Your task to perform on an android device: Open Google Chrome and open the bookmarks view Image 0: 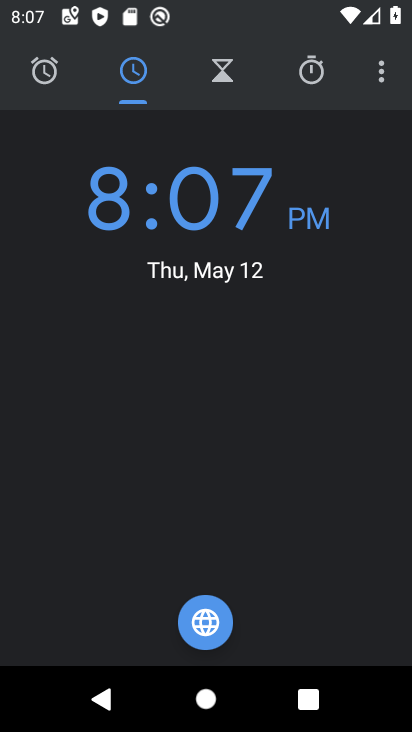
Step 0: press home button
Your task to perform on an android device: Open Google Chrome and open the bookmarks view Image 1: 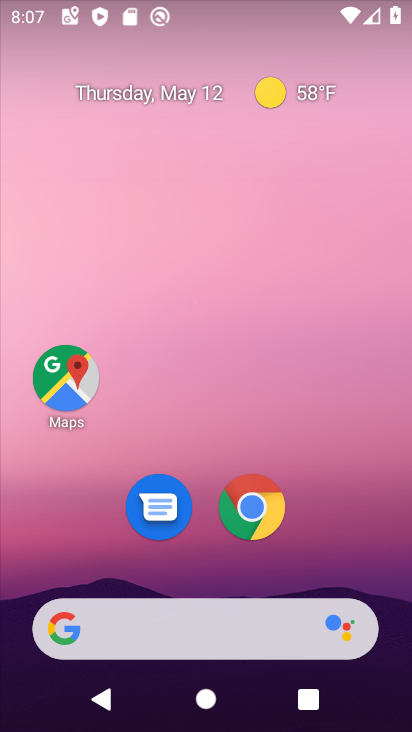
Step 1: click (244, 519)
Your task to perform on an android device: Open Google Chrome and open the bookmarks view Image 2: 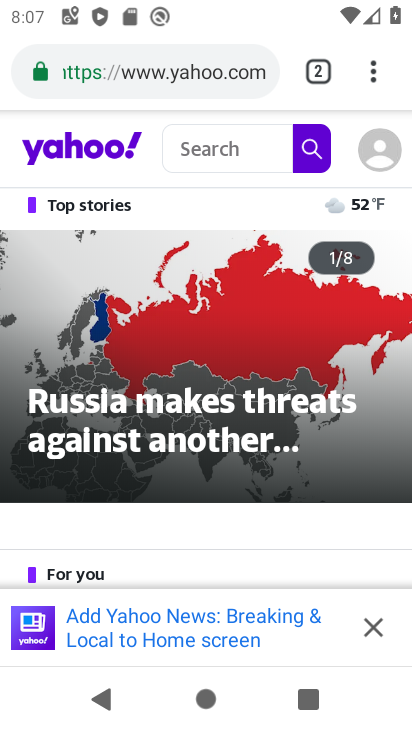
Step 2: task complete